Your task to perform on an android device: set the timer Image 0: 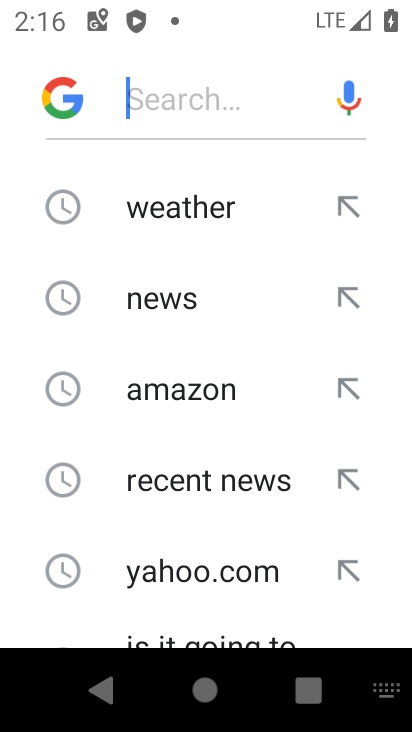
Step 0: press home button
Your task to perform on an android device: set the timer Image 1: 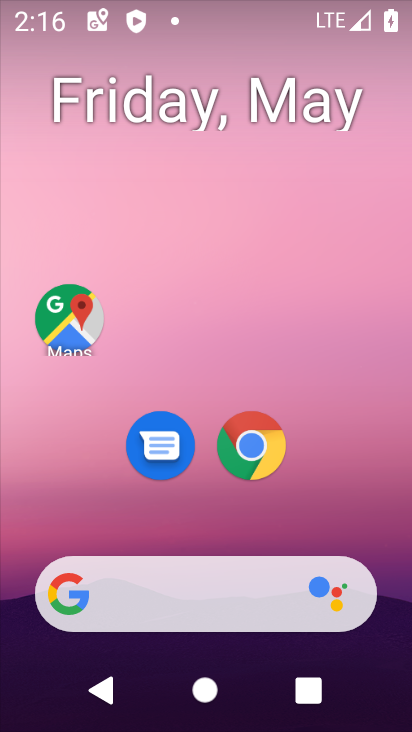
Step 1: drag from (215, 522) to (235, 90)
Your task to perform on an android device: set the timer Image 2: 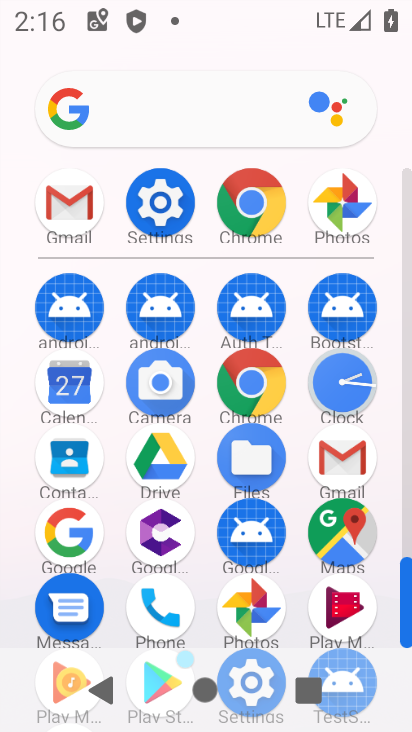
Step 2: click (340, 372)
Your task to perform on an android device: set the timer Image 3: 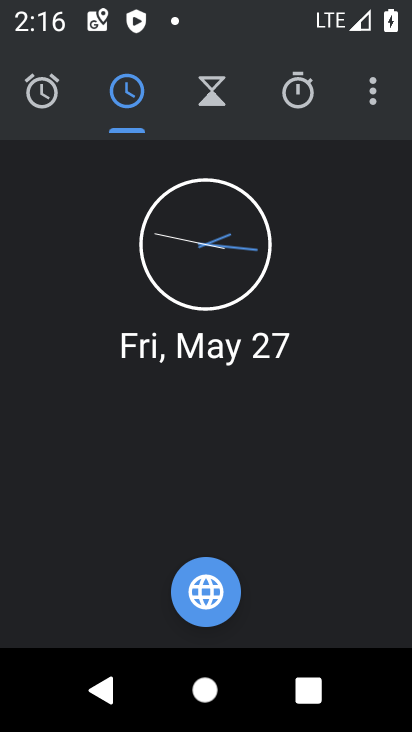
Step 3: click (208, 96)
Your task to perform on an android device: set the timer Image 4: 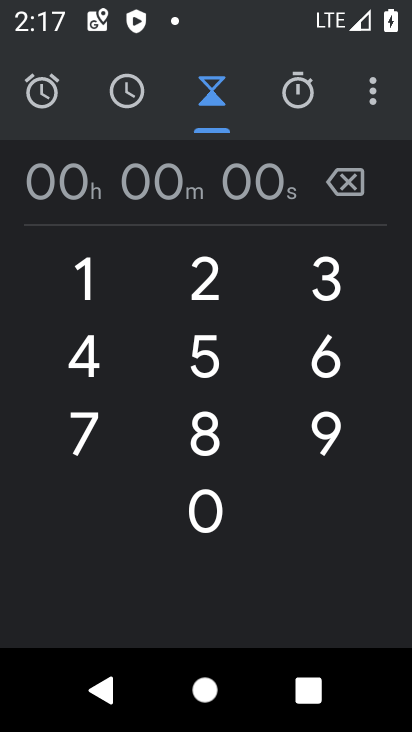
Step 4: click (318, 370)
Your task to perform on an android device: set the timer Image 5: 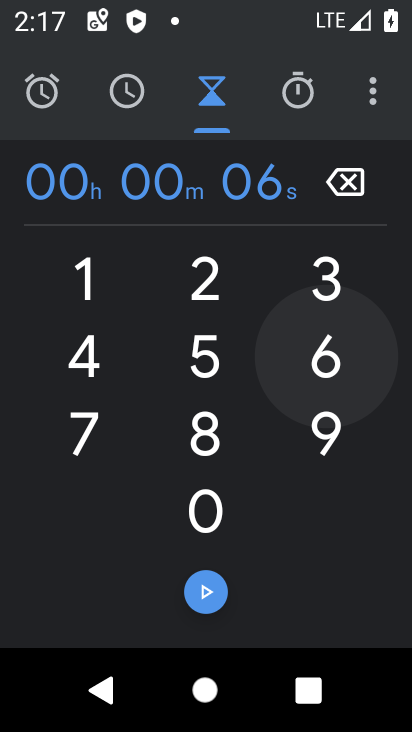
Step 5: click (203, 505)
Your task to perform on an android device: set the timer Image 6: 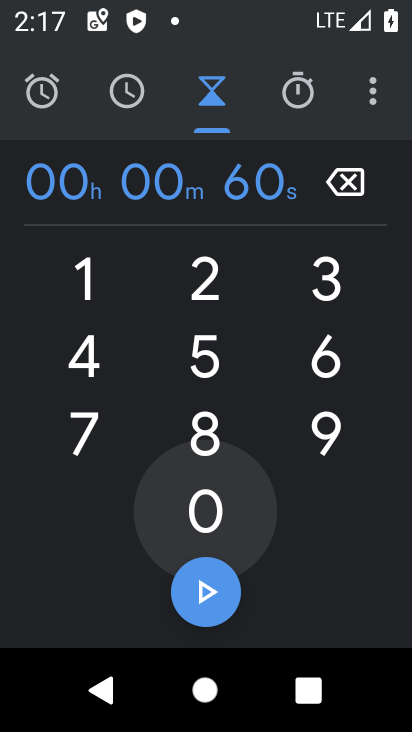
Step 6: click (203, 505)
Your task to perform on an android device: set the timer Image 7: 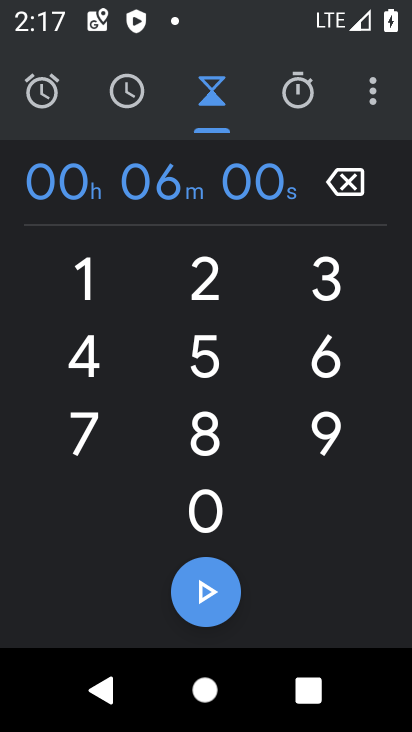
Step 7: click (203, 505)
Your task to perform on an android device: set the timer Image 8: 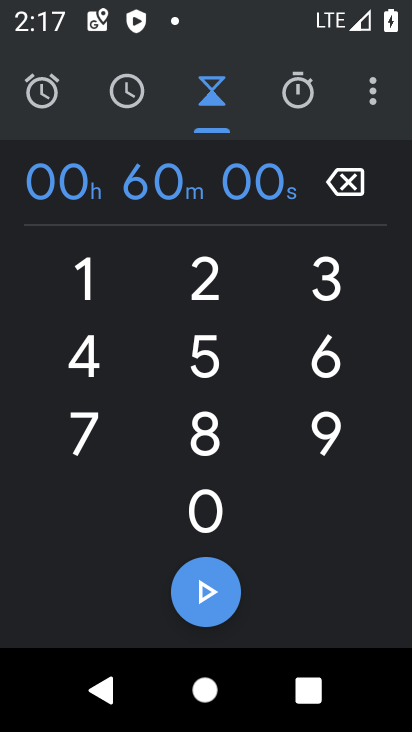
Step 8: click (207, 577)
Your task to perform on an android device: set the timer Image 9: 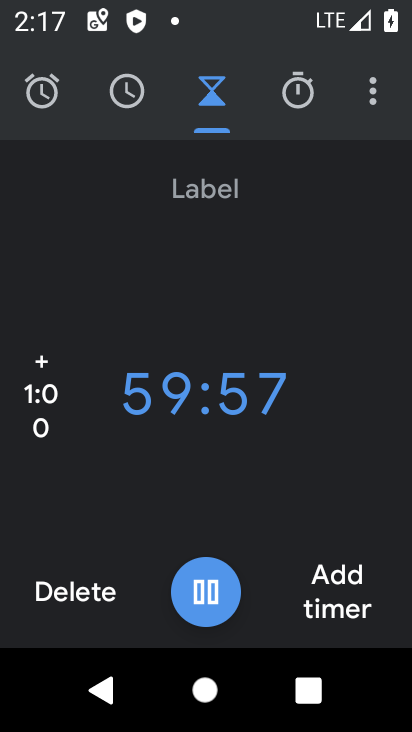
Step 9: task complete